Your task to perform on an android device: open a new tab in the chrome app Image 0: 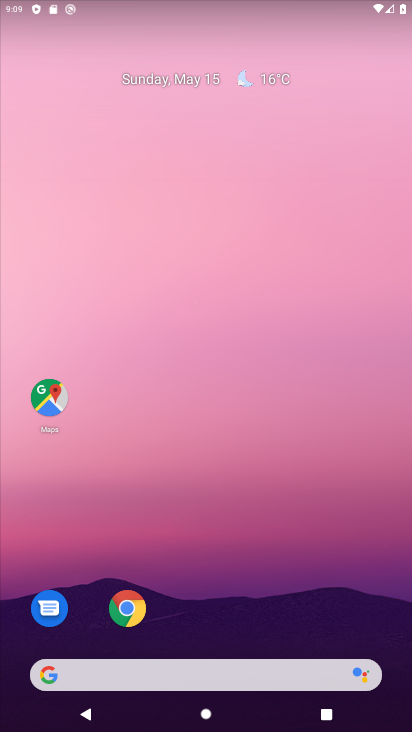
Step 0: click (112, 603)
Your task to perform on an android device: open a new tab in the chrome app Image 1: 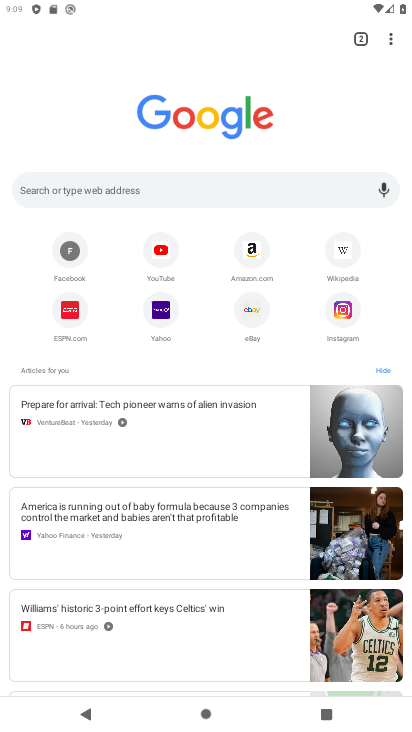
Step 1: click (355, 39)
Your task to perform on an android device: open a new tab in the chrome app Image 2: 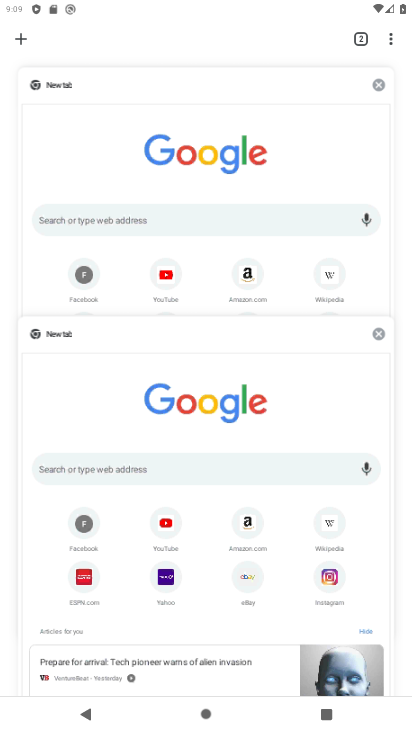
Step 2: click (17, 44)
Your task to perform on an android device: open a new tab in the chrome app Image 3: 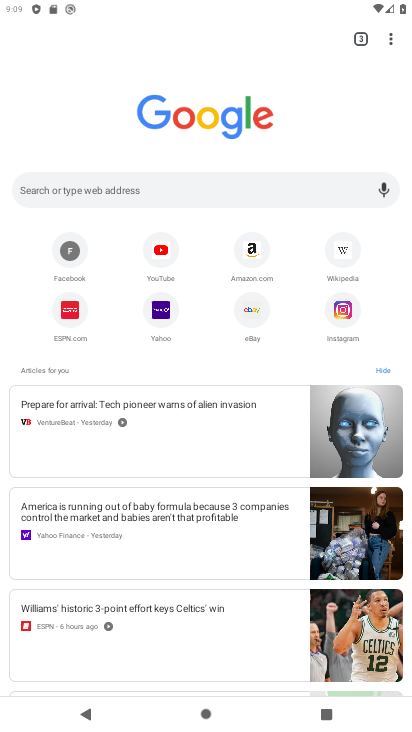
Step 3: task complete